Your task to perform on an android device: set the stopwatch Image 0: 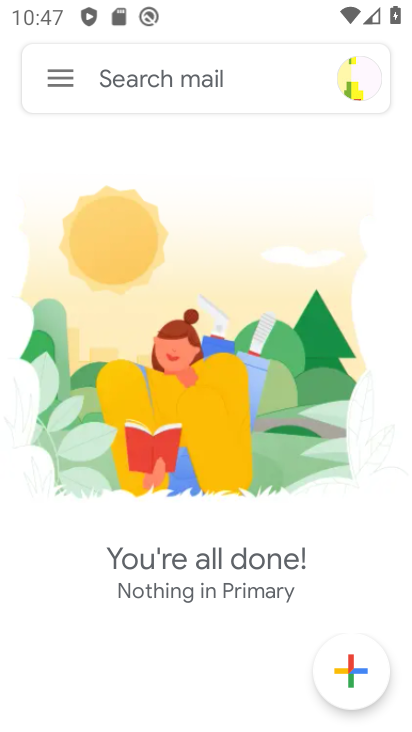
Step 0: press home button
Your task to perform on an android device: set the stopwatch Image 1: 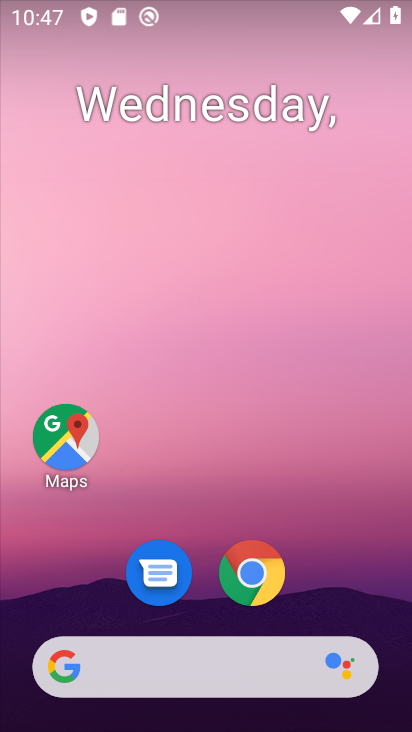
Step 1: drag from (406, 626) to (328, 162)
Your task to perform on an android device: set the stopwatch Image 2: 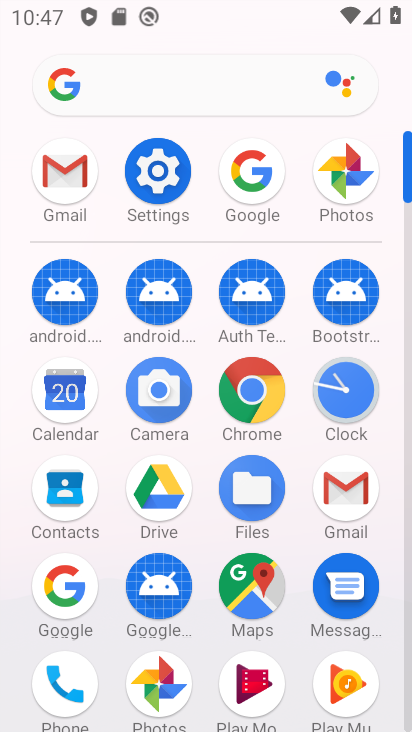
Step 2: click (337, 403)
Your task to perform on an android device: set the stopwatch Image 3: 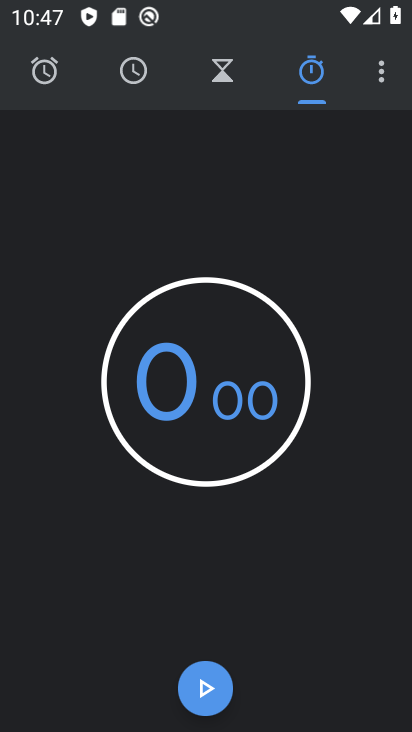
Step 3: click (214, 693)
Your task to perform on an android device: set the stopwatch Image 4: 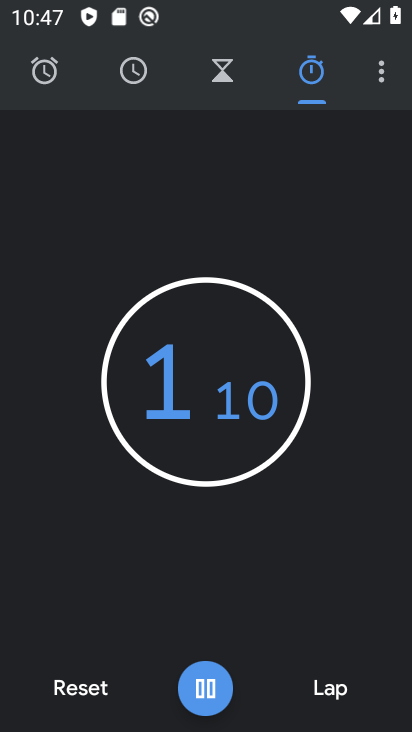
Step 4: task complete